Your task to perform on an android device: Do I have any events today? Image 0: 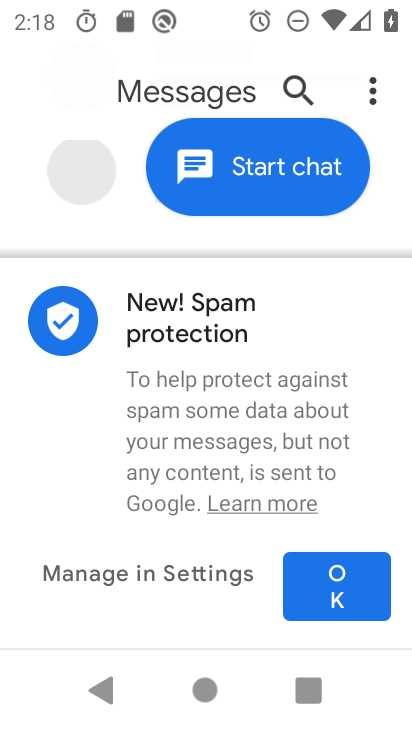
Step 0: press home button
Your task to perform on an android device: Do I have any events today? Image 1: 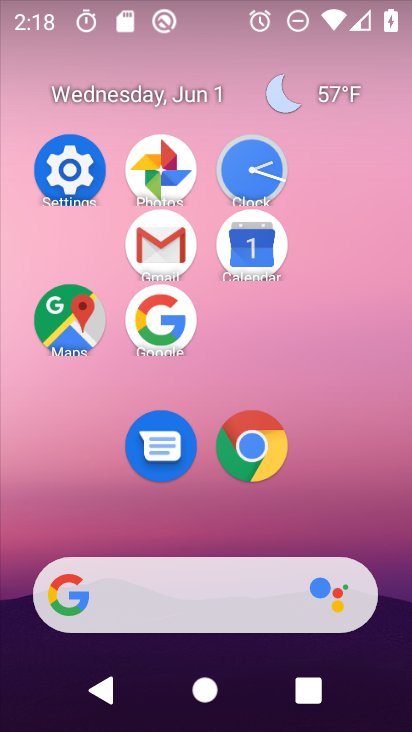
Step 1: click (272, 251)
Your task to perform on an android device: Do I have any events today? Image 2: 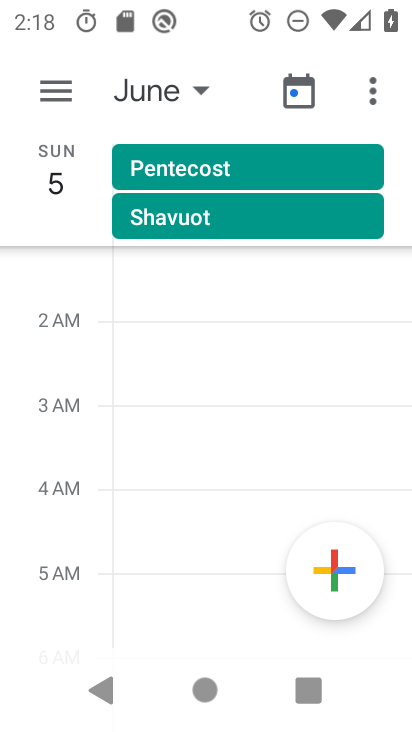
Step 2: drag from (72, 180) to (409, 181)
Your task to perform on an android device: Do I have any events today? Image 3: 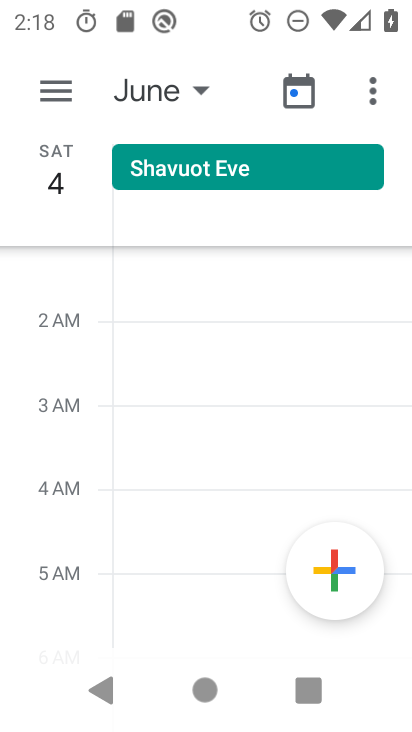
Step 3: drag from (37, 182) to (367, 164)
Your task to perform on an android device: Do I have any events today? Image 4: 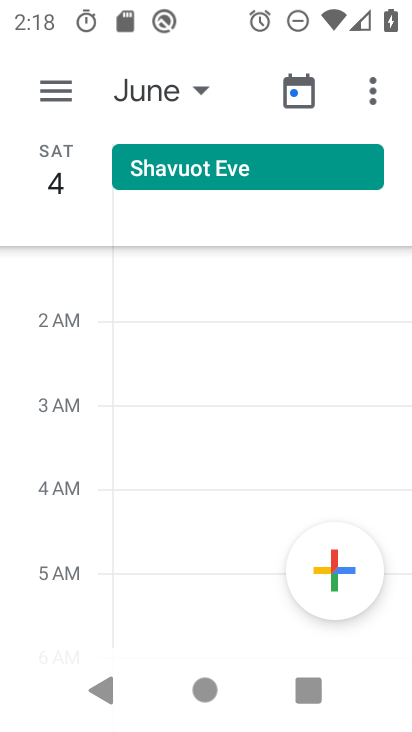
Step 4: drag from (46, 171) to (356, 211)
Your task to perform on an android device: Do I have any events today? Image 5: 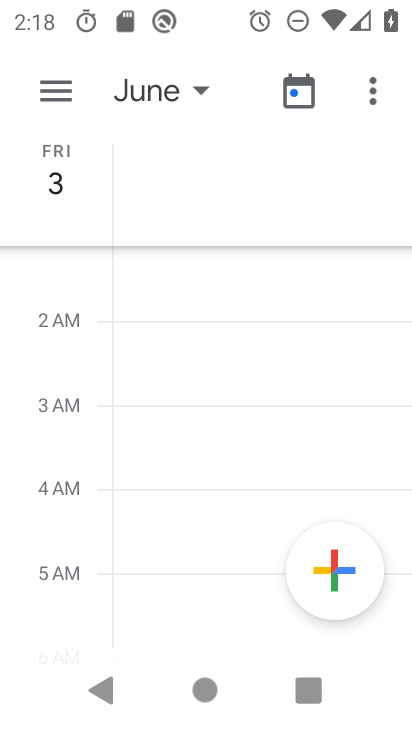
Step 5: drag from (27, 178) to (407, 191)
Your task to perform on an android device: Do I have any events today? Image 6: 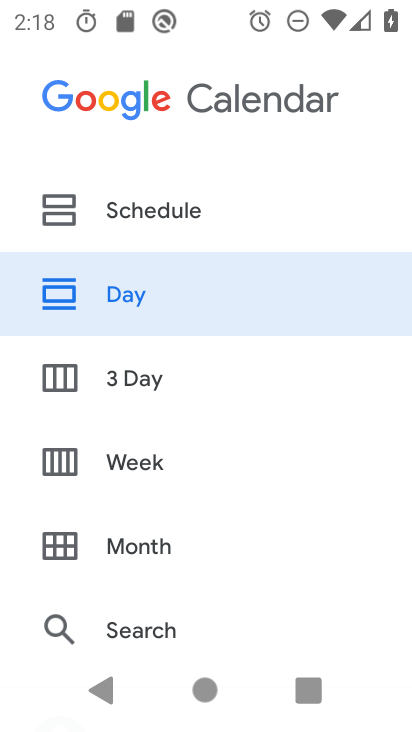
Step 6: click (208, 281)
Your task to perform on an android device: Do I have any events today? Image 7: 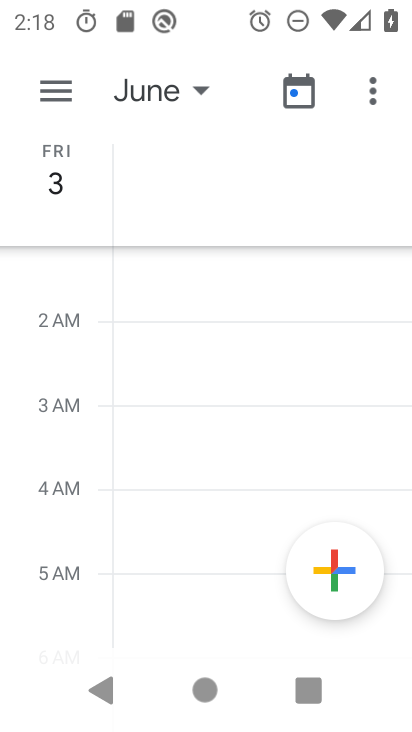
Step 7: drag from (68, 165) to (395, 171)
Your task to perform on an android device: Do I have any events today? Image 8: 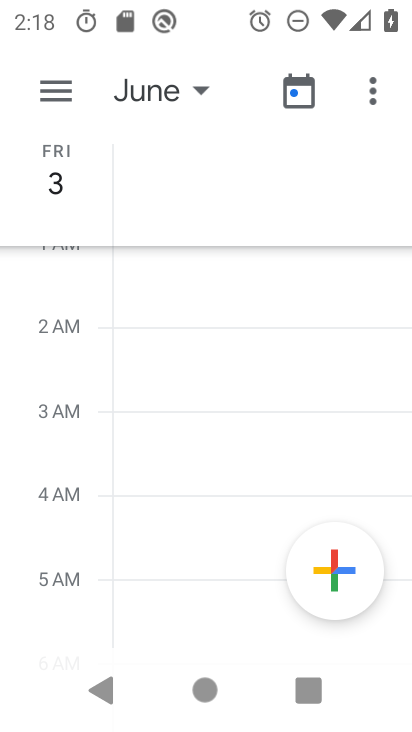
Step 8: drag from (126, 191) to (395, 200)
Your task to perform on an android device: Do I have any events today? Image 9: 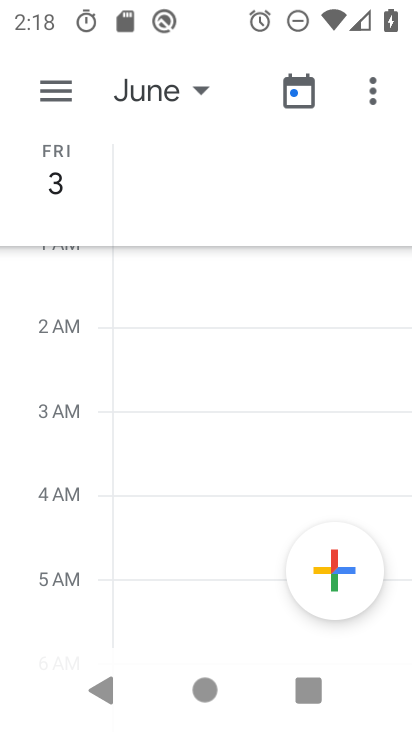
Step 9: drag from (94, 209) to (410, 218)
Your task to perform on an android device: Do I have any events today? Image 10: 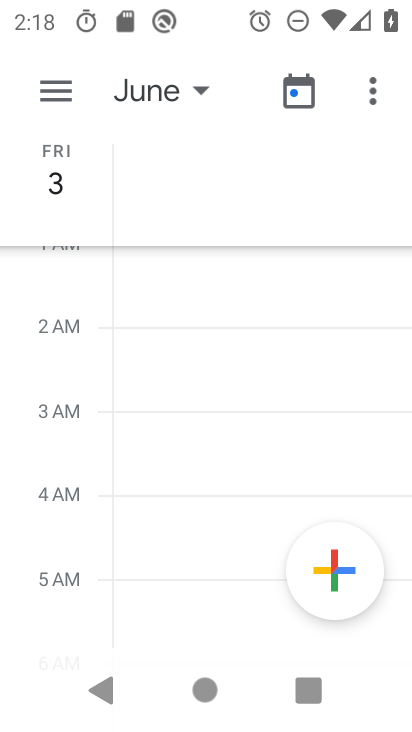
Step 10: drag from (42, 174) to (378, 26)
Your task to perform on an android device: Do I have any events today? Image 11: 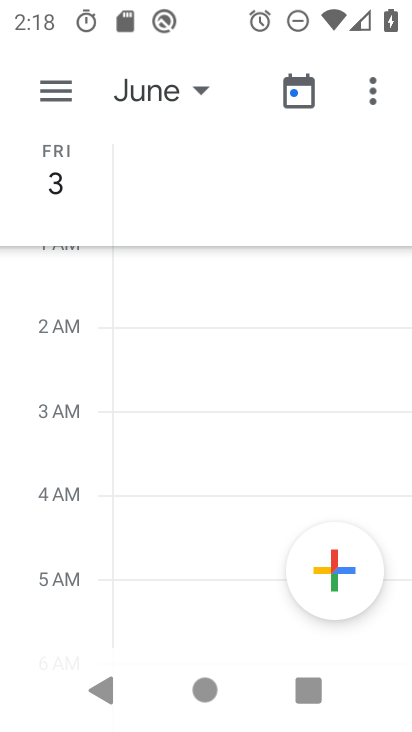
Step 11: drag from (103, 171) to (408, 213)
Your task to perform on an android device: Do I have any events today? Image 12: 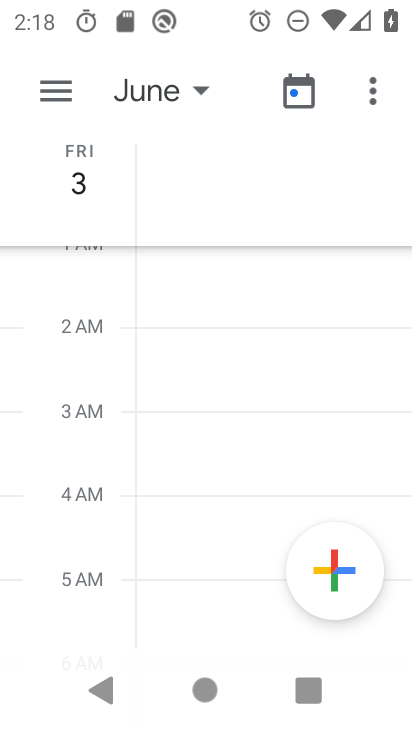
Step 12: drag from (52, 190) to (390, 213)
Your task to perform on an android device: Do I have any events today? Image 13: 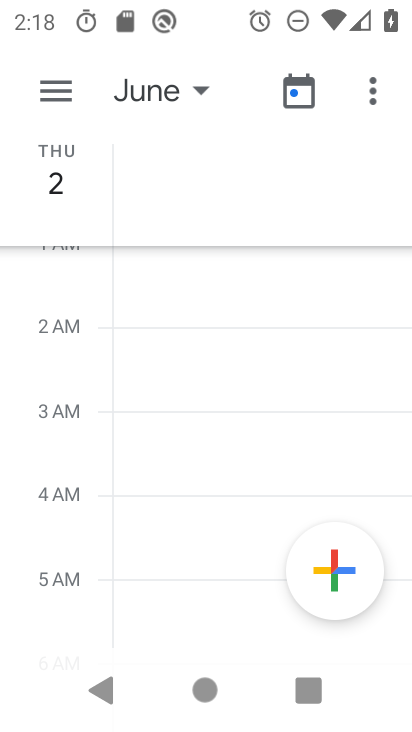
Step 13: click (161, 101)
Your task to perform on an android device: Do I have any events today? Image 14: 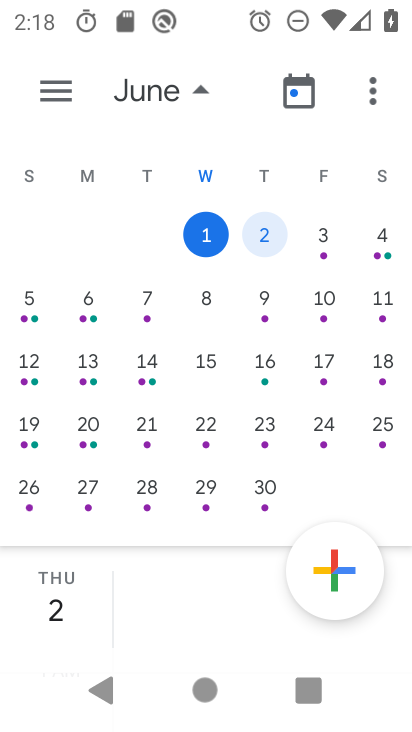
Step 14: click (210, 248)
Your task to perform on an android device: Do I have any events today? Image 15: 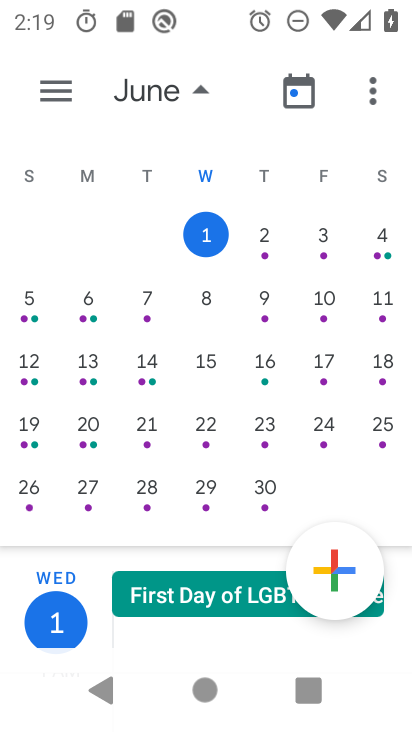
Step 15: click (211, 230)
Your task to perform on an android device: Do I have any events today? Image 16: 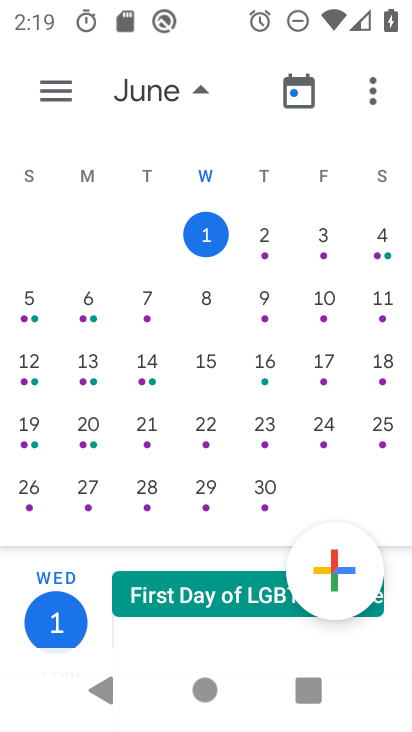
Step 16: click (66, 617)
Your task to perform on an android device: Do I have any events today? Image 17: 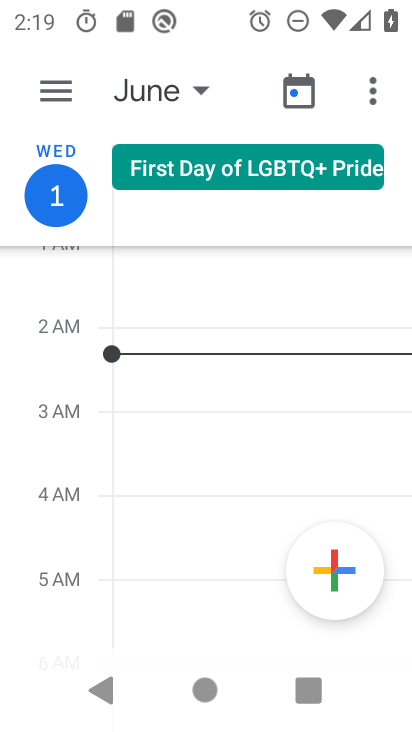
Step 17: task complete